Your task to perform on an android device: Open the stopwatch Image 0: 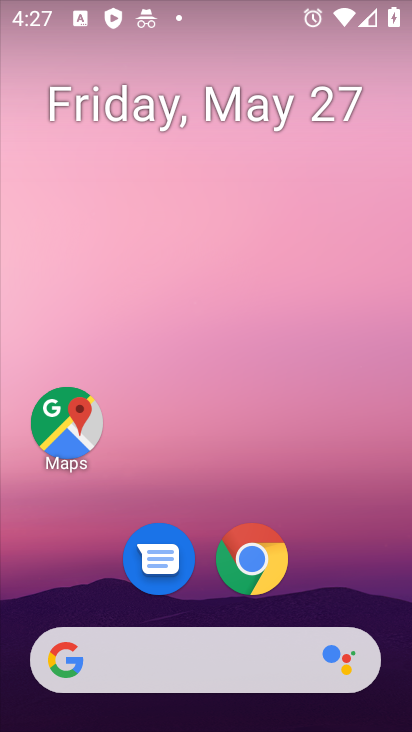
Step 0: drag from (279, 249) to (312, 12)
Your task to perform on an android device: Open the stopwatch Image 1: 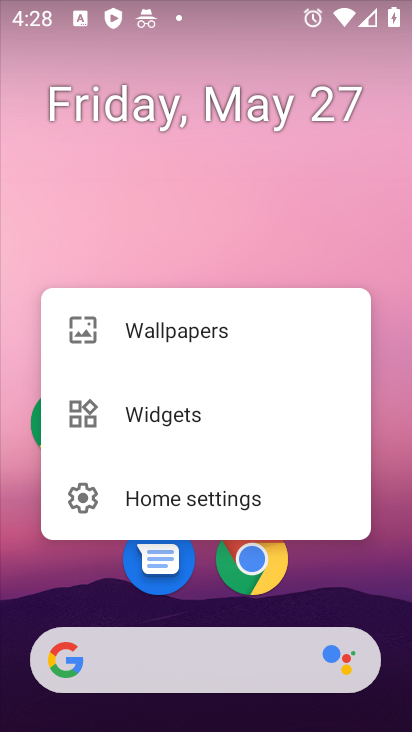
Step 1: drag from (285, 671) to (251, 104)
Your task to perform on an android device: Open the stopwatch Image 2: 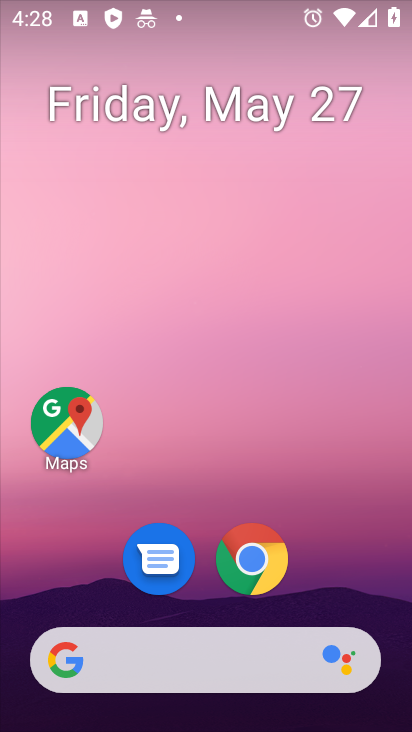
Step 2: drag from (161, 608) to (175, 54)
Your task to perform on an android device: Open the stopwatch Image 3: 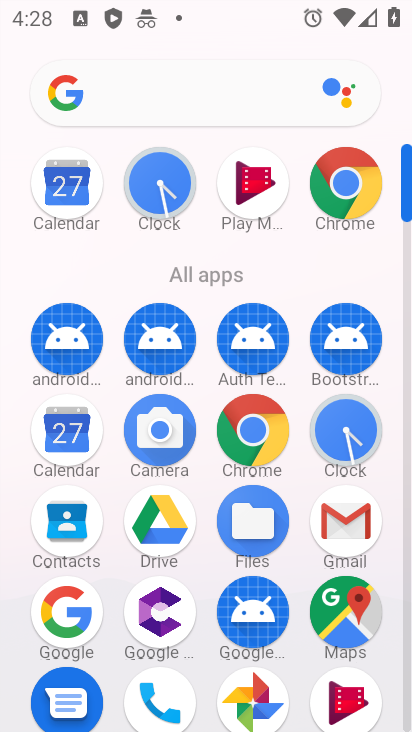
Step 3: click (346, 423)
Your task to perform on an android device: Open the stopwatch Image 4: 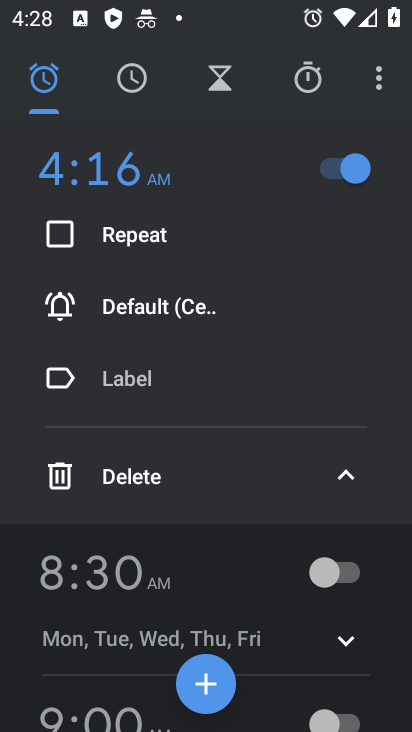
Step 4: click (315, 98)
Your task to perform on an android device: Open the stopwatch Image 5: 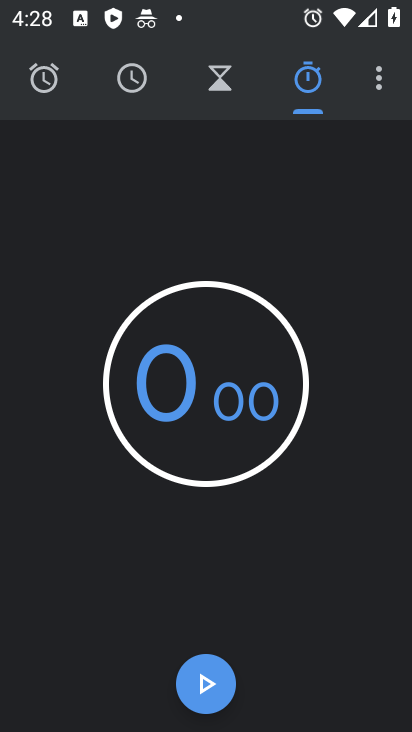
Step 5: task complete